Your task to perform on an android device: Show me productivity apps on the Play Store Image 0: 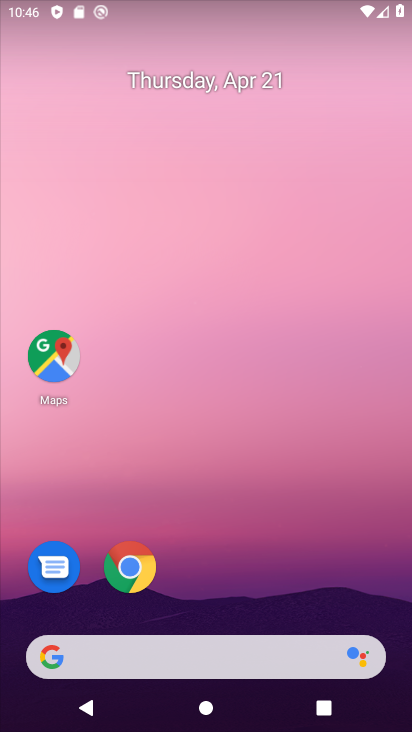
Step 0: click (324, 493)
Your task to perform on an android device: Show me productivity apps on the Play Store Image 1: 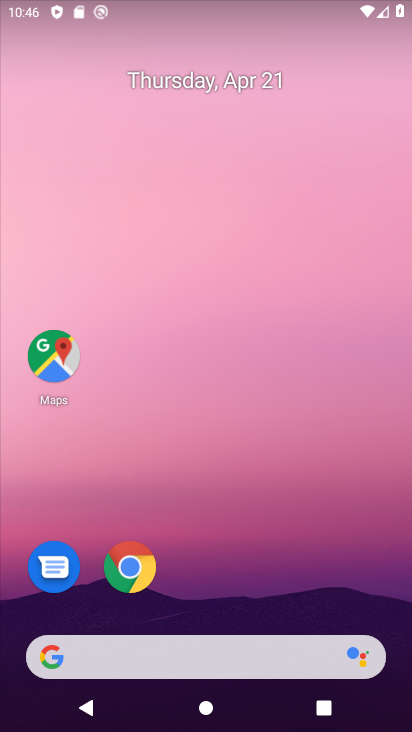
Step 1: drag from (227, 607) to (243, 75)
Your task to perform on an android device: Show me productivity apps on the Play Store Image 2: 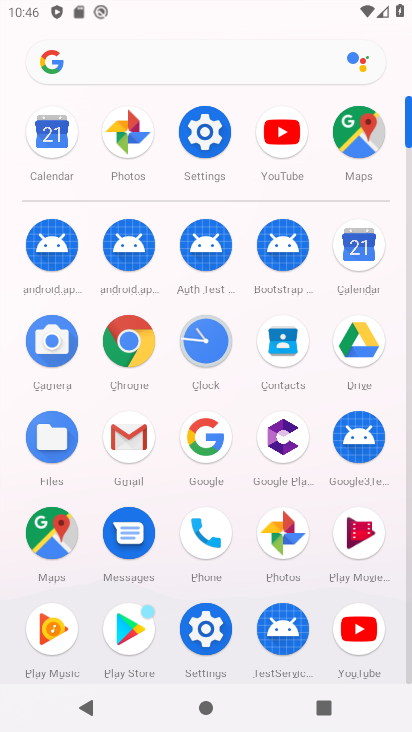
Step 2: click (134, 626)
Your task to perform on an android device: Show me productivity apps on the Play Store Image 3: 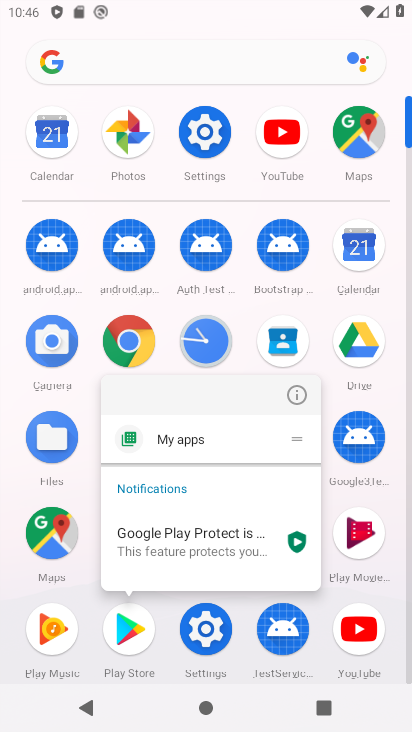
Step 3: click (109, 640)
Your task to perform on an android device: Show me productivity apps on the Play Store Image 4: 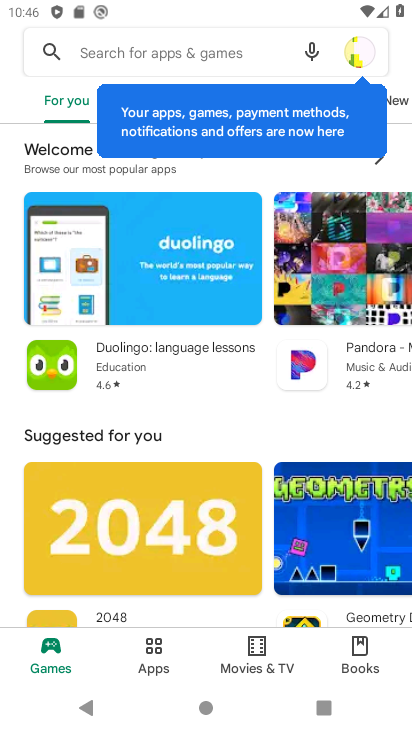
Step 4: click (162, 643)
Your task to perform on an android device: Show me productivity apps on the Play Store Image 5: 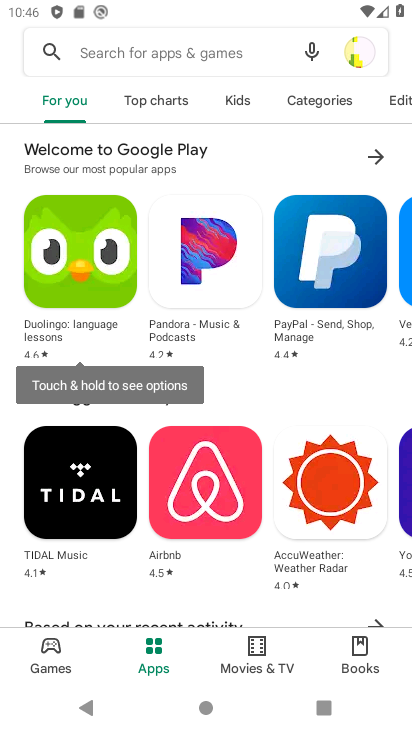
Step 5: click (320, 107)
Your task to perform on an android device: Show me productivity apps on the Play Store Image 6: 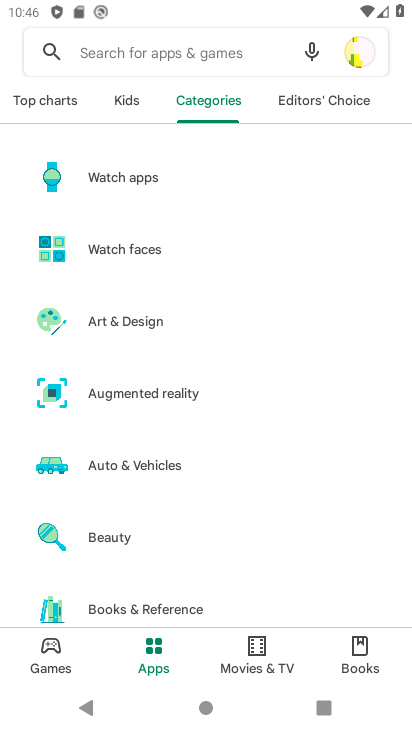
Step 6: drag from (133, 512) to (198, 136)
Your task to perform on an android device: Show me productivity apps on the Play Store Image 7: 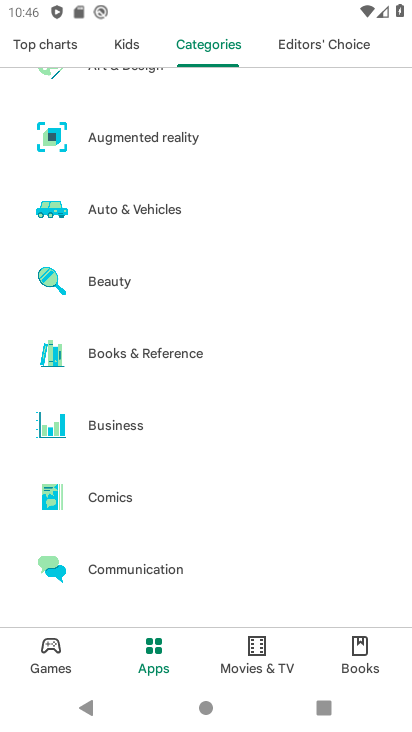
Step 7: drag from (135, 485) to (192, 75)
Your task to perform on an android device: Show me productivity apps on the Play Store Image 8: 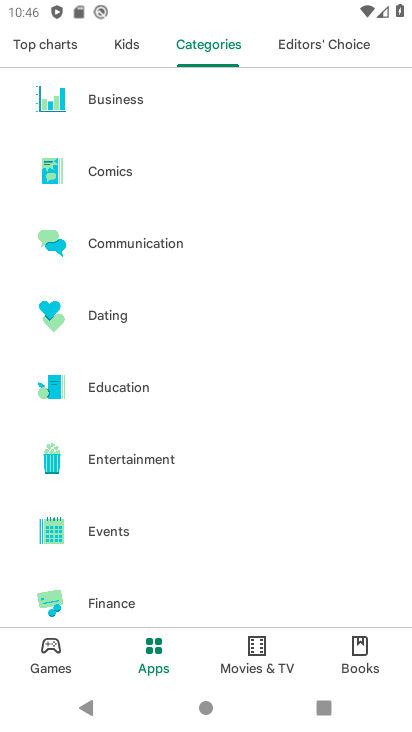
Step 8: drag from (124, 580) to (267, 41)
Your task to perform on an android device: Show me productivity apps on the Play Store Image 9: 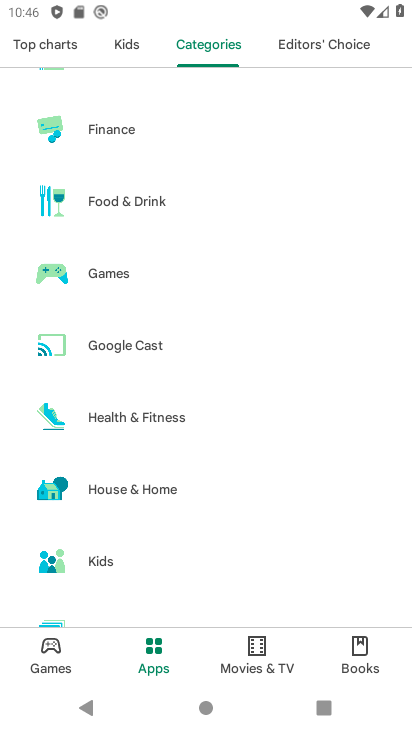
Step 9: drag from (157, 579) to (250, 121)
Your task to perform on an android device: Show me productivity apps on the Play Store Image 10: 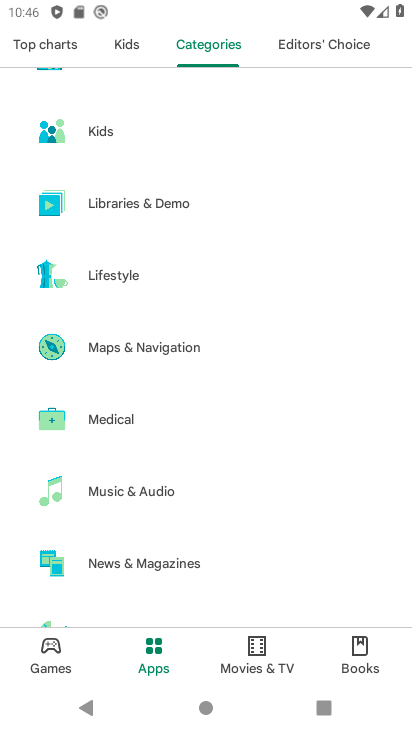
Step 10: drag from (158, 583) to (213, 131)
Your task to perform on an android device: Show me productivity apps on the Play Store Image 11: 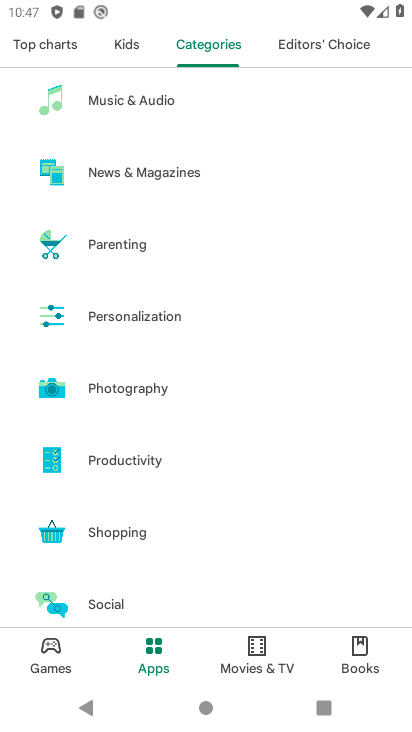
Step 11: click (143, 469)
Your task to perform on an android device: Show me productivity apps on the Play Store Image 12: 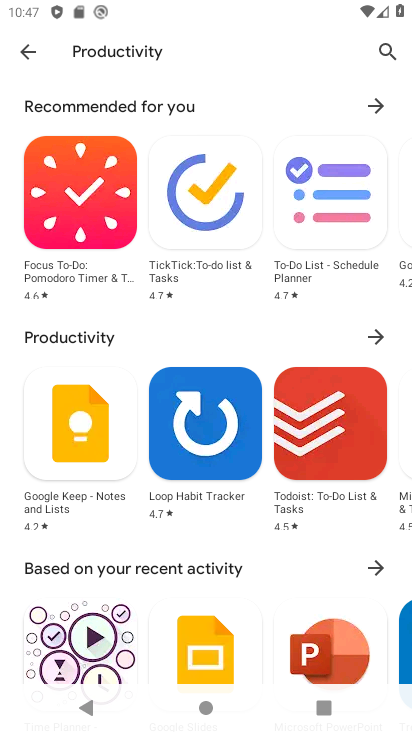
Step 12: task complete